Your task to perform on an android device: Open Yahoo.com Image 0: 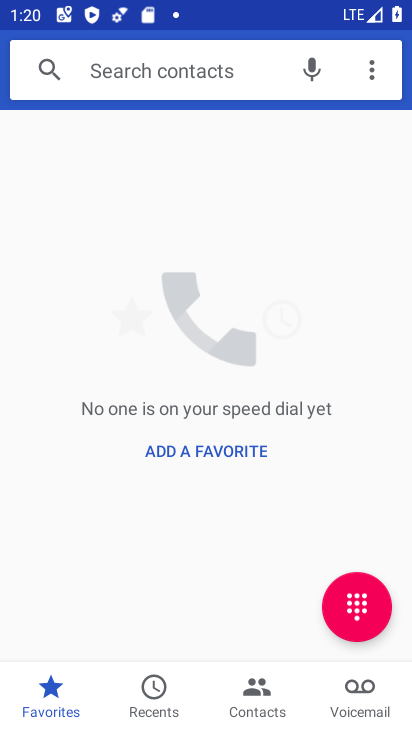
Step 0: press home button
Your task to perform on an android device: Open Yahoo.com Image 1: 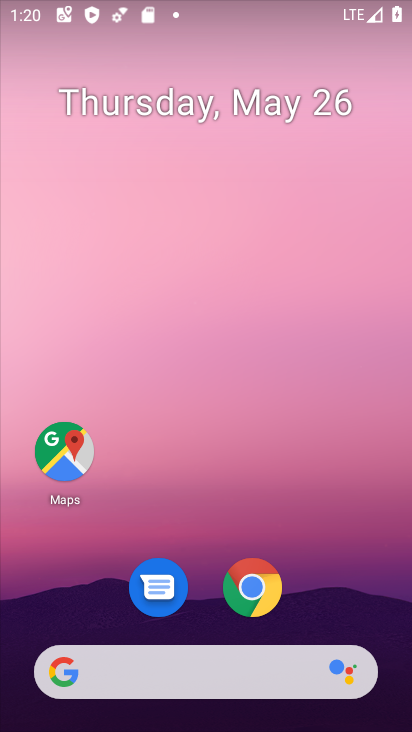
Step 1: drag from (347, 607) to (354, 176)
Your task to perform on an android device: Open Yahoo.com Image 2: 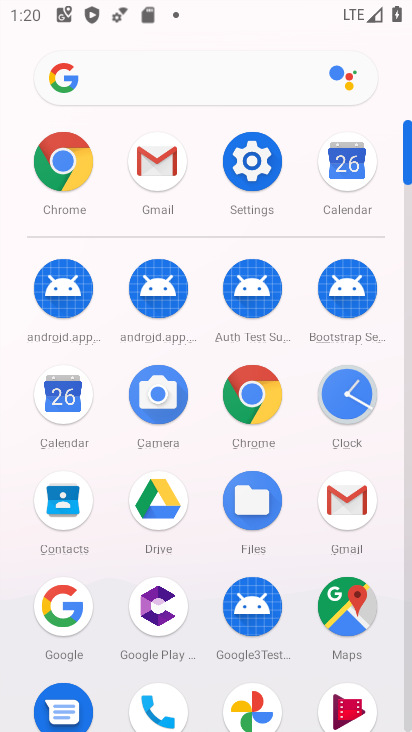
Step 2: click (258, 419)
Your task to perform on an android device: Open Yahoo.com Image 3: 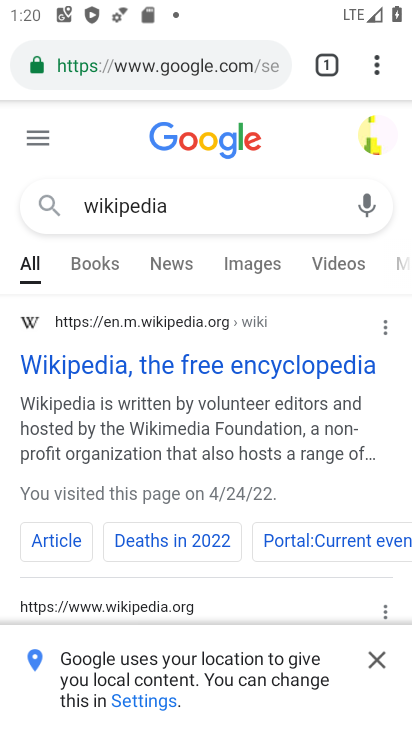
Step 3: task complete